Your task to perform on an android device: Open Chrome and go to the settings page Image 0: 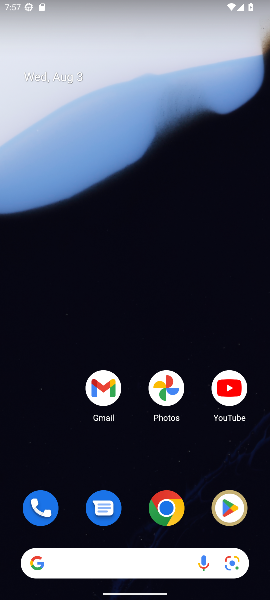
Step 0: drag from (142, 534) to (257, 215)
Your task to perform on an android device: Open Chrome and go to the settings page Image 1: 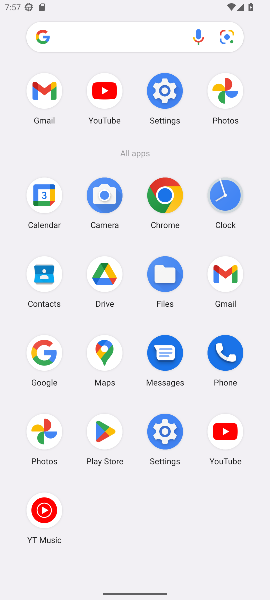
Step 1: click (148, 202)
Your task to perform on an android device: Open Chrome and go to the settings page Image 2: 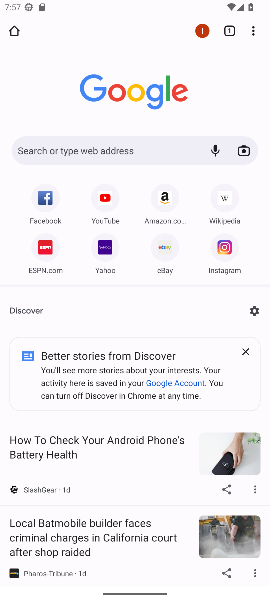
Step 2: task complete